Your task to perform on an android device: Go to ESPN.com Image 0: 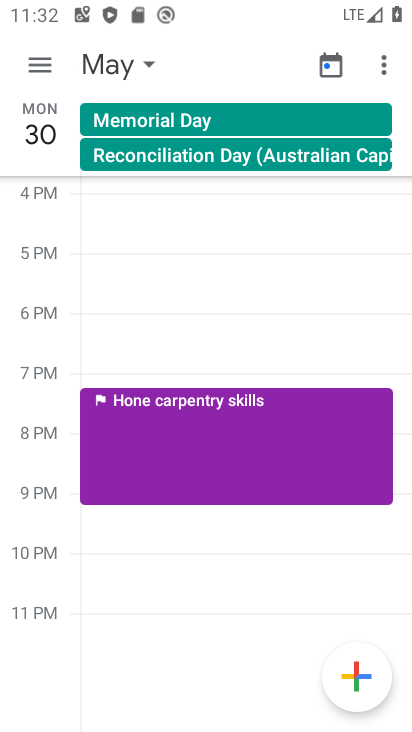
Step 0: press home button
Your task to perform on an android device: Go to ESPN.com Image 1: 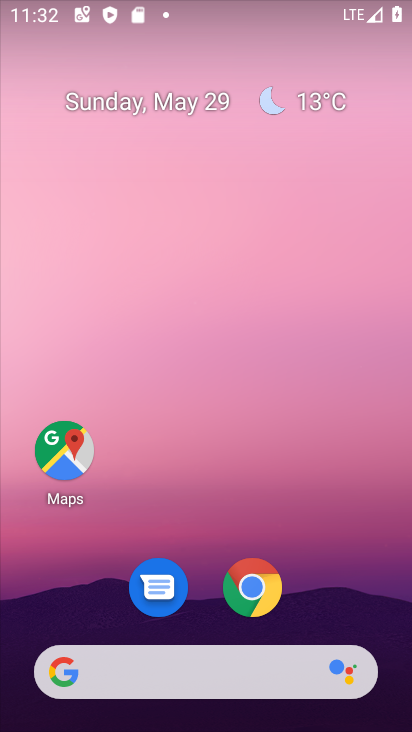
Step 1: click (245, 582)
Your task to perform on an android device: Go to ESPN.com Image 2: 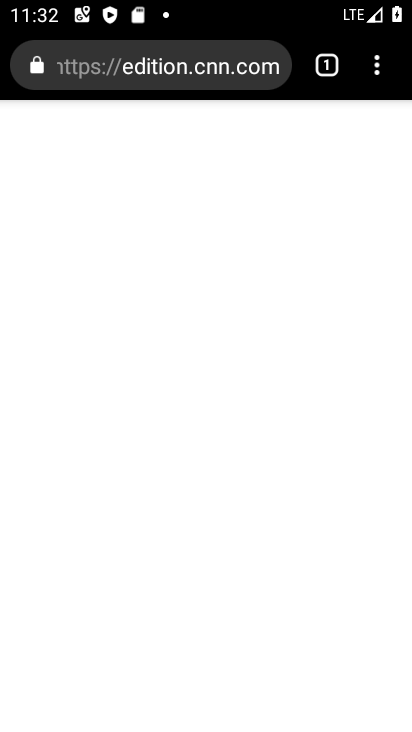
Step 2: click (203, 75)
Your task to perform on an android device: Go to ESPN.com Image 3: 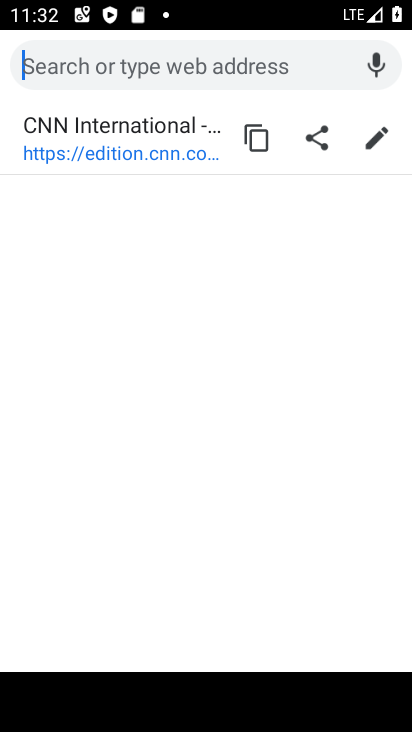
Step 3: type "espn.com"
Your task to perform on an android device: Go to ESPN.com Image 4: 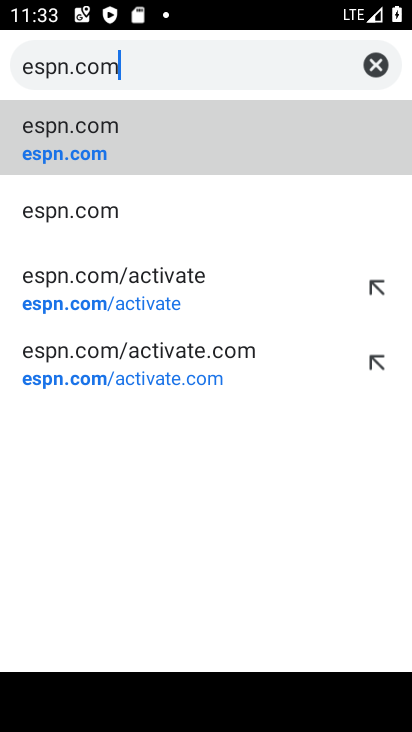
Step 4: click (83, 155)
Your task to perform on an android device: Go to ESPN.com Image 5: 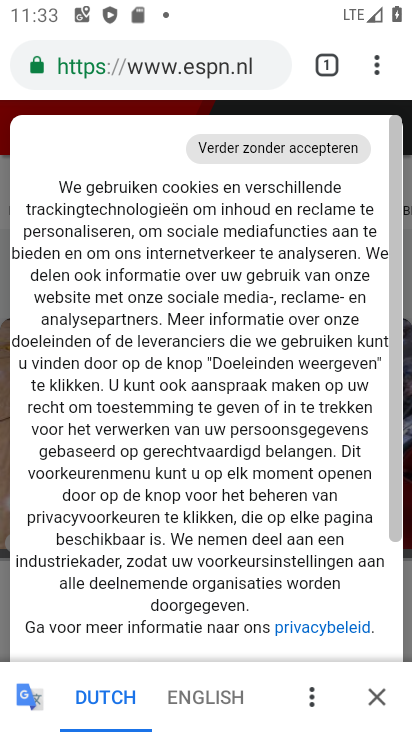
Step 5: task complete